Your task to perform on an android device: Open the stopwatch Image 0: 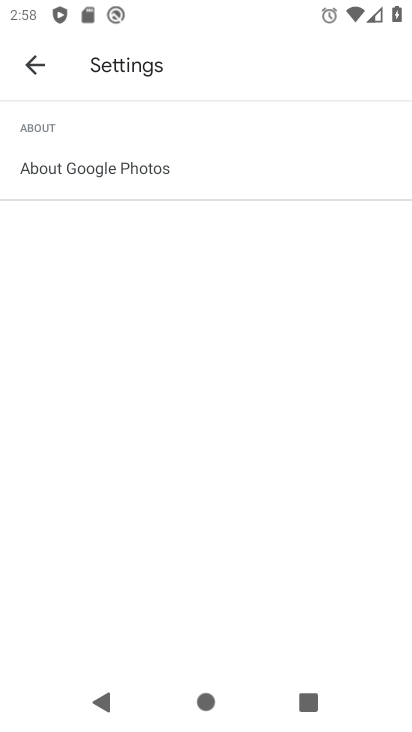
Step 0: press back button
Your task to perform on an android device: Open the stopwatch Image 1: 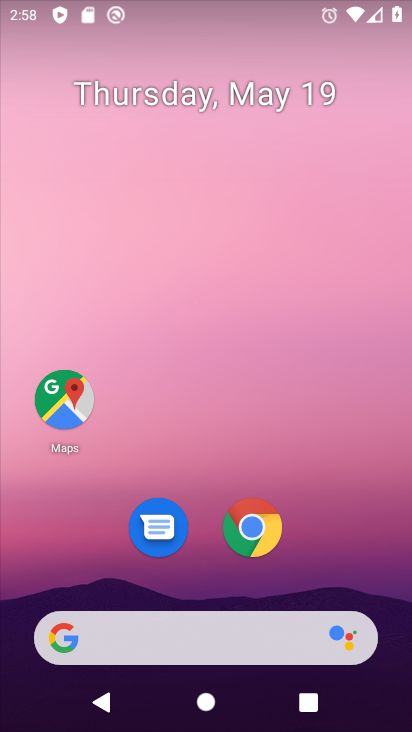
Step 1: drag from (177, 538) to (241, 81)
Your task to perform on an android device: Open the stopwatch Image 2: 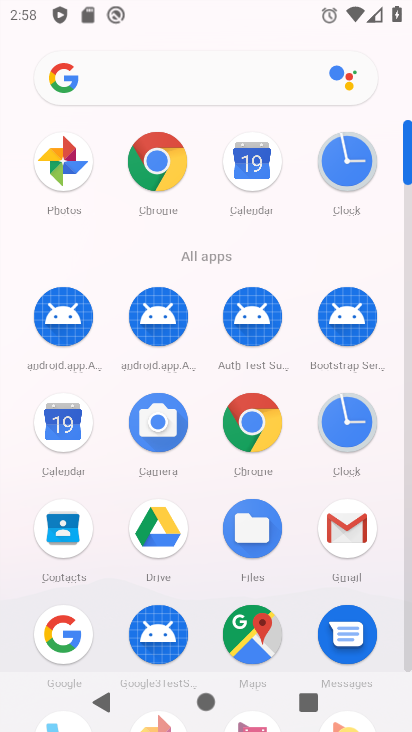
Step 2: click (357, 178)
Your task to perform on an android device: Open the stopwatch Image 3: 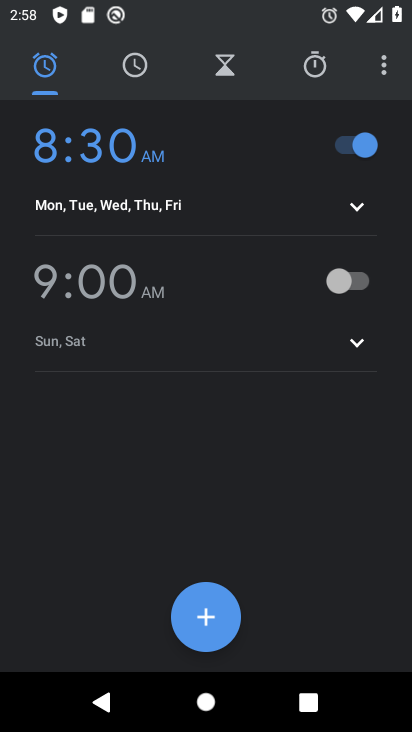
Step 3: click (309, 70)
Your task to perform on an android device: Open the stopwatch Image 4: 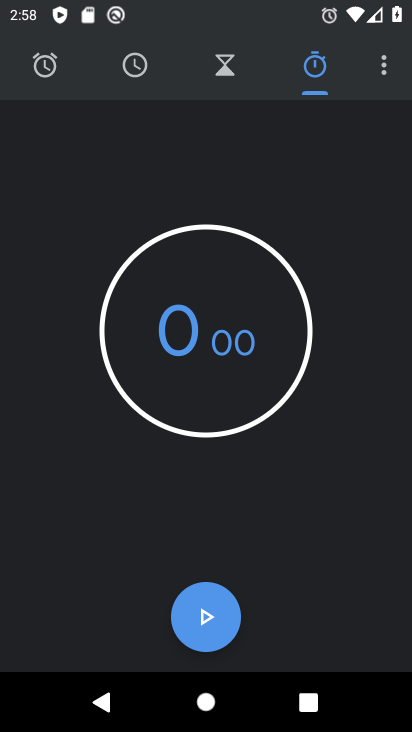
Step 4: task complete